Your task to perform on an android device: Open Chrome and go to the settings page Image 0: 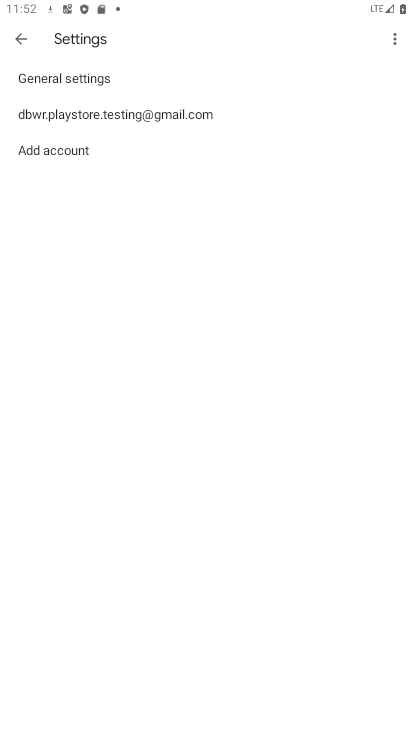
Step 0: press home button
Your task to perform on an android device: Open Chrome and go to the settings page Image 1: 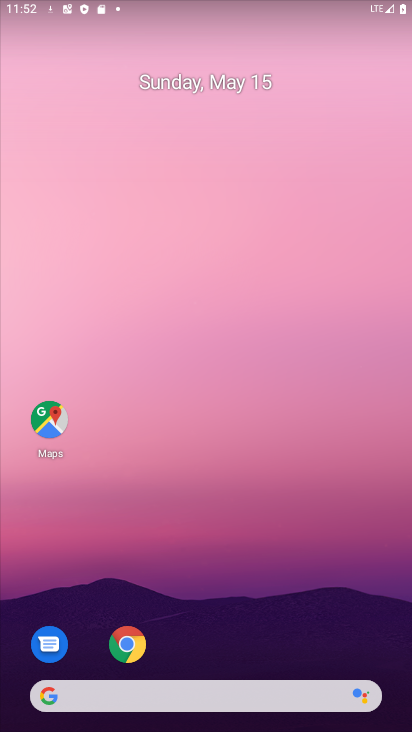
Step 1: drag from (223, 709) to (291, 209)
Your task to perform on an android device: Open Chrome and go to the settings page Image 2: 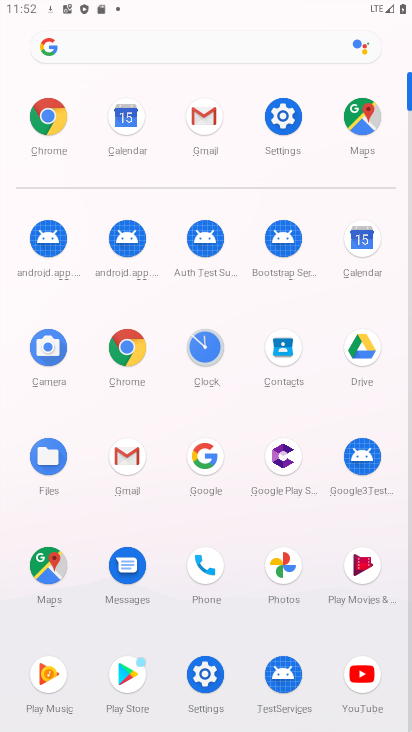
Step 2: click (129, 332)
Your task to perform on an android device: Open Chrome and go to the settings page Image 3: 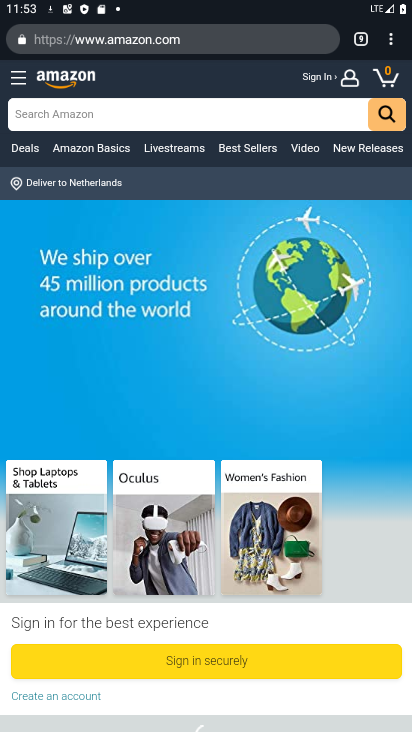
Step 3: click (393, 37)
Your task to perform on an android device: Open Chrome and go to the settings page Image 4: 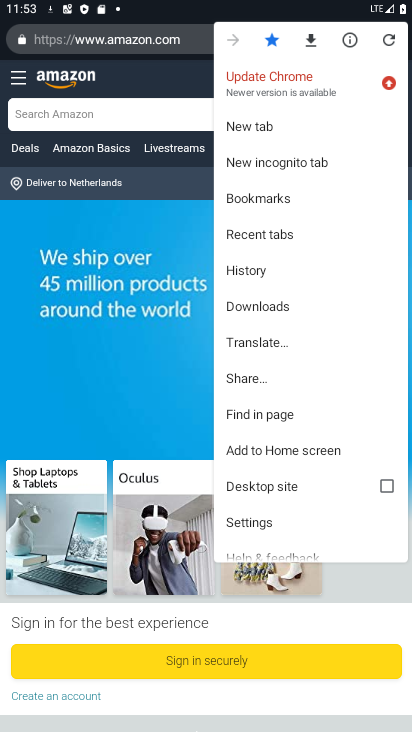
Step 4: click (238, 523)
Your task to perform on an android device: Open Chrome and go to the settings page Image 5: 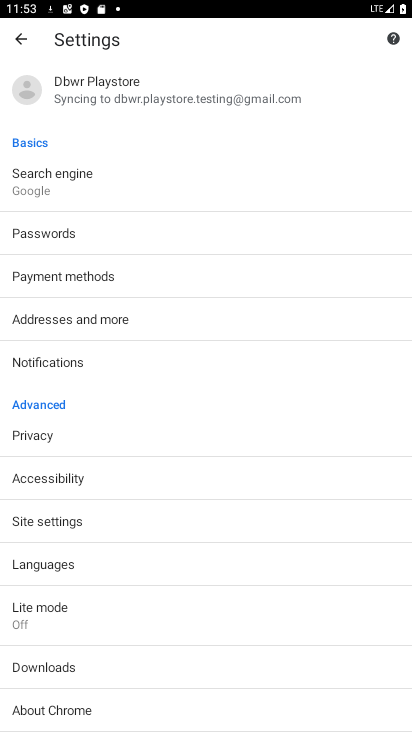
Step 5: task complete